Your task to perform on an android device: turn pop-ups on in chrome Image 0: 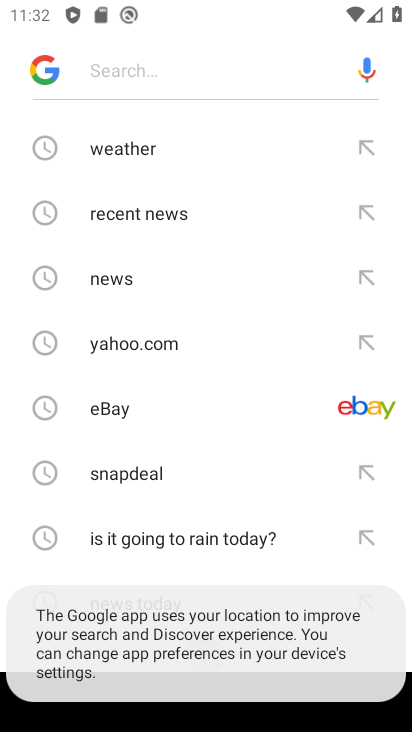
Step 0: press home button
Your task to perform on an android device: turn pop-ups on in chrome Image 1: 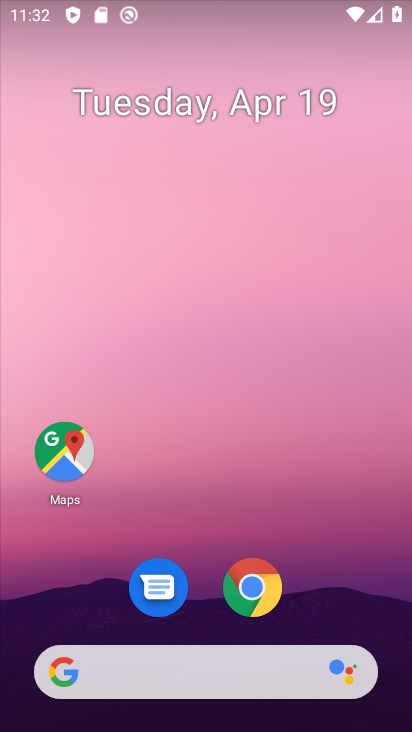
Step 1: click (249, 594)
Your task to perform on an android device: turn pop-ups on in chrome Image 2: 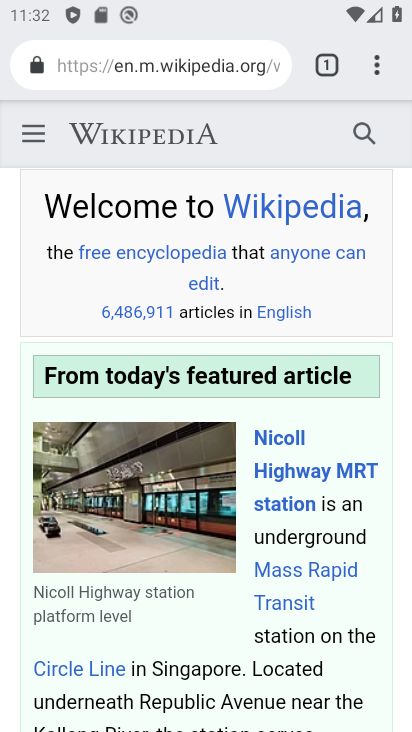
Step 2: click (383, 57)
Your task to perform on an android device: turn pop-ups on in chrome Image 3: 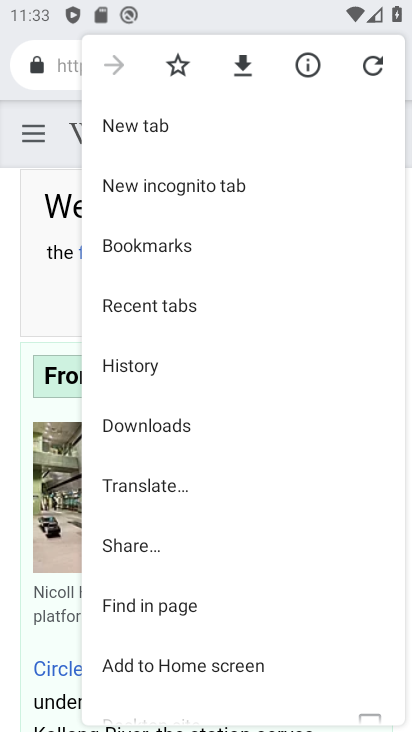
Step 3: drag from (197, 676) to (253, 315)
Your task to perform on an android device: turn pop-ups on in chrome Image 4: 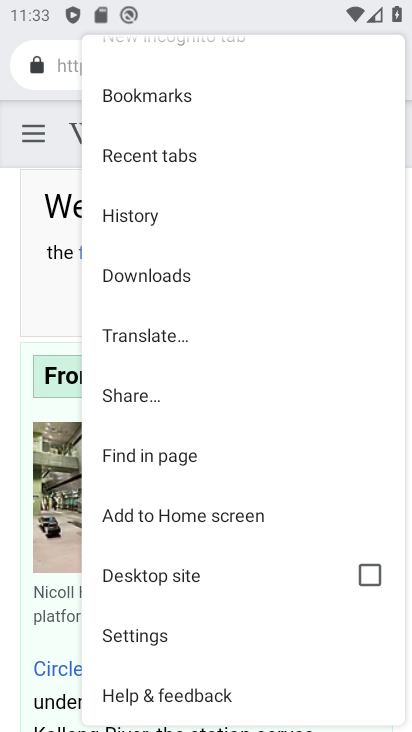
Step 4: drag from (228, 532) to (265, 148)
Your task to perform on an android device: turn pop-ups on in chrome Image 5: 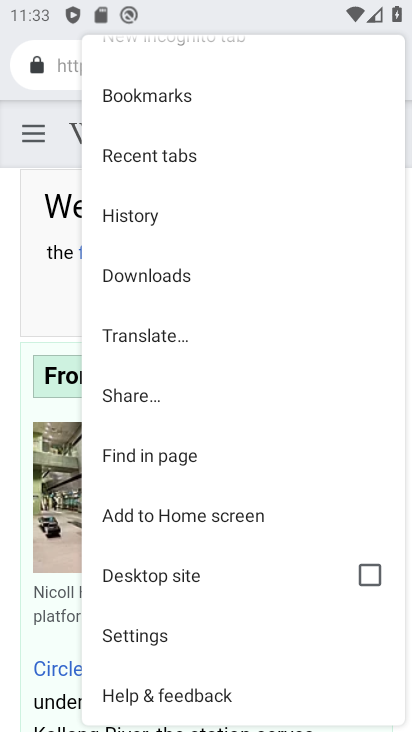
Step 5: click (157, 633)
Your task to perform on an android device: turn pop-ups on in chrome Image 6: 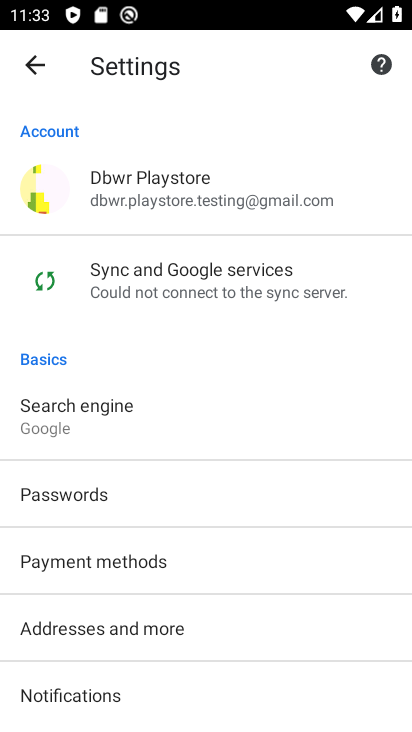
Step 6: drag from (171, 588) to (222, 172)
Your task to perform on an android device: turn pop-ups on in chrome Image 7: 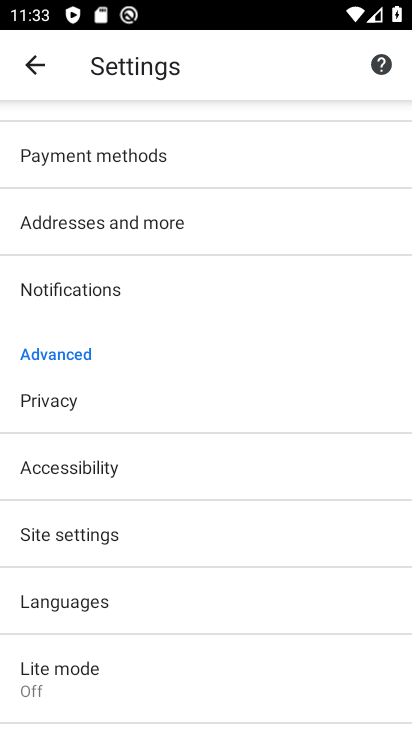
Step 7: click (143, 542)
Your task to perform on an android device: turn pop-ups on in chrome Image 8: 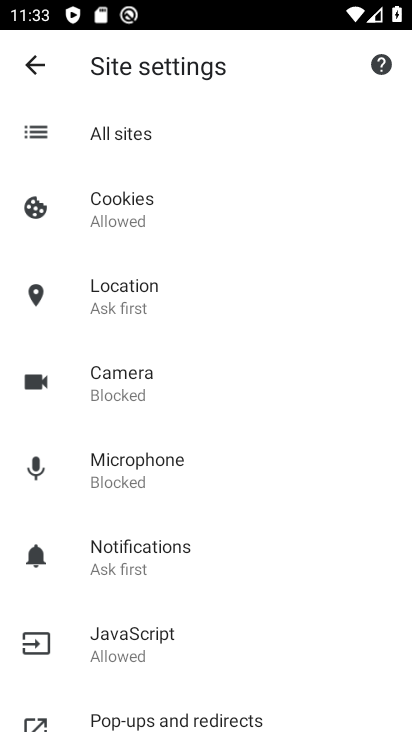
Step 8: drag from (200, 625) to (247, 245)
Your task to perform on an android device: turn pop-ups on in chrome Image 9: 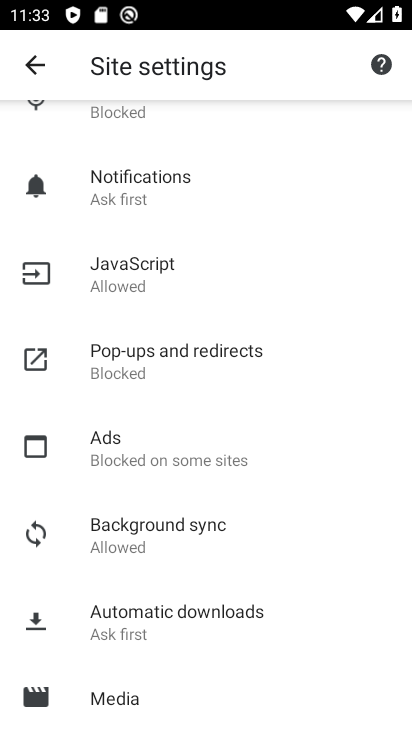
Step 9: click (144, 369)
Your task to perform on an android device: turn pop-ups on in chrome Image 10: 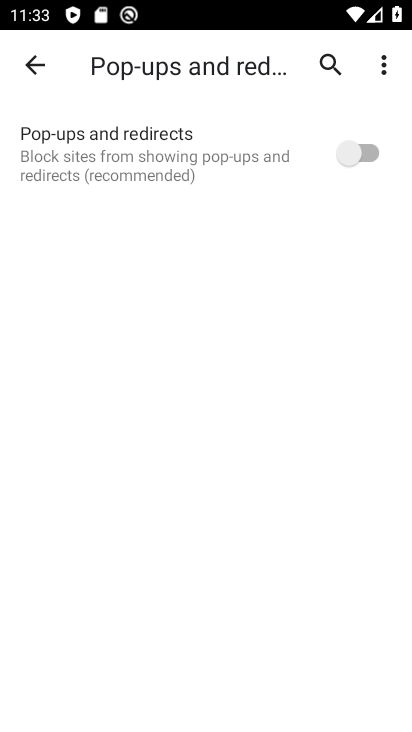
Step 10: click (356, 155)
Your task to perform on an android device: turn pop-ups on in chrome Image 11: 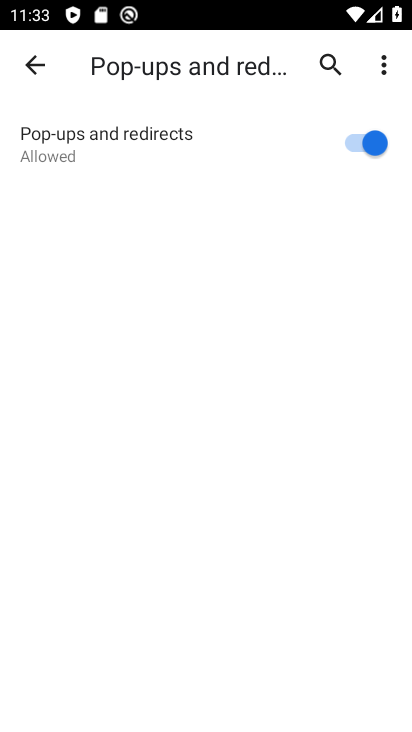
Step 11: task complete